Your task to perform on an android device: turn off translation in the chrome app Image 0: 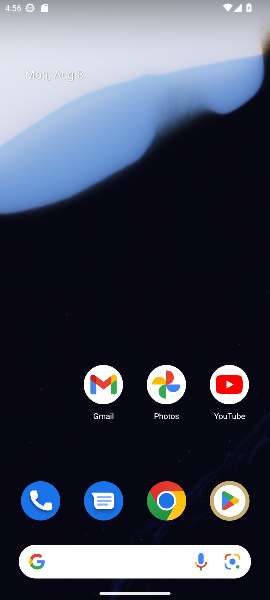
Step 0: click (163, 500)
Your task to perform on an android device: turn off translation in the chrome app Image 1: 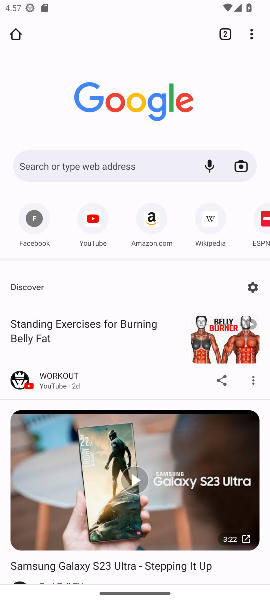
Step 1: click (255, 34)
Your task to perform on an android device: turn off translation in the chrome app Image 2: 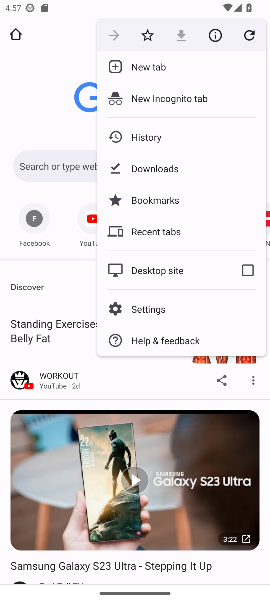
Step 2: click (149, 309)
Your task to perform on an android device: turn off translation in the chrome app Image 3: 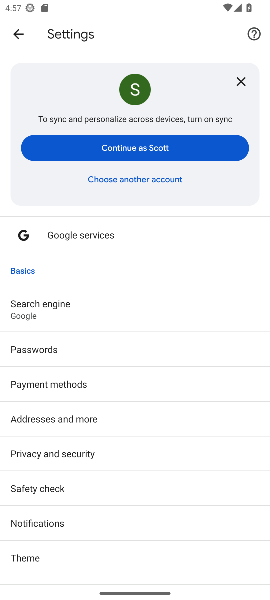
Step 3: drag from (209, 564) to (210, 373)
Your task to perform on an android device: turn off translation in the chrome app Image 4: 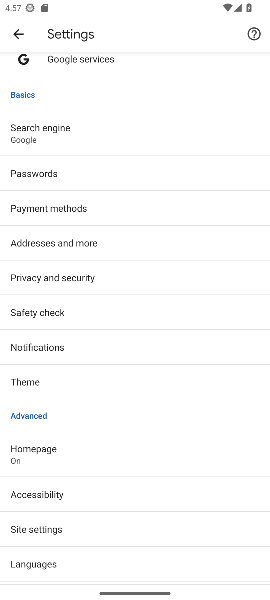
Step 4: click (26, 569)
Your task to perform on an android device: turn off translation in the chrome app Image 5: 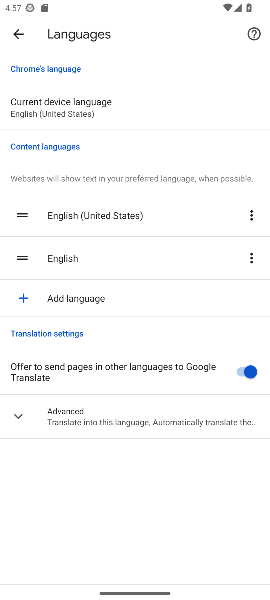
Step 5: click (79, 422)
Your task to perform on an android device: turn off translation in the chrome app Image 6: 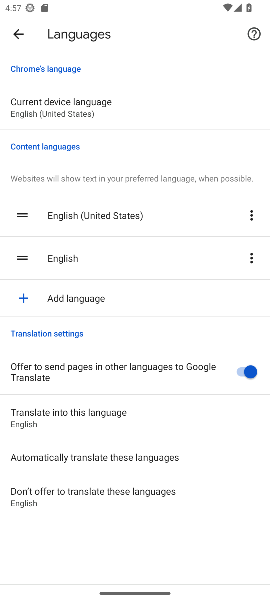
Step 6: click (79, 408)
Your task to perform on an android device: turn off translation in the chrome app Image 7: 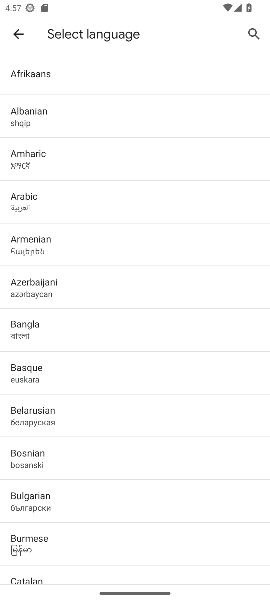
Step 7: task complete